Your task to perform on an android device: move an email to a new category in the gmail app Image 0: 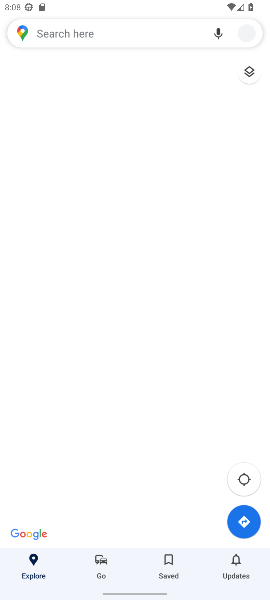
Step 0: drag from (144, 536) to (254, 271)
Your task to perform on an android device: move an email to a new category in the gmail app Image 1: 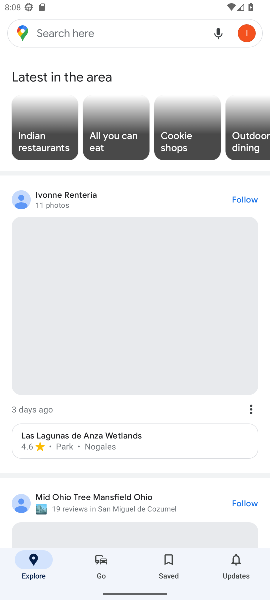
Step 1: press home button
Your task to perform on an android device: move an email to a new category in the gmail app Image 2: 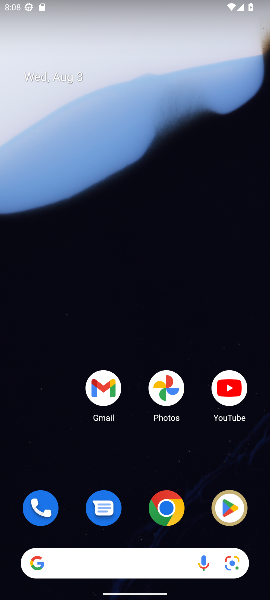
Step 2: drag from (132, 537) to (150, 0)
Your task to perform on an android device: move an email to a new category in the gmail app Image 3: 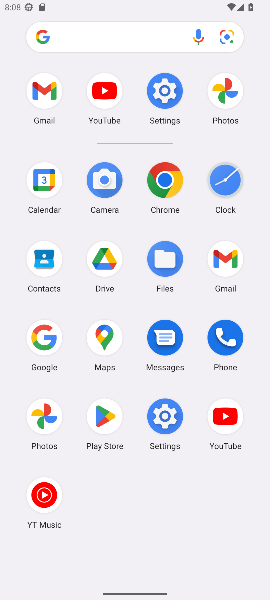
Step 3: click (225, 266)
Your task to perform on an android device: move an email to a new category in the gmail app Image 4: 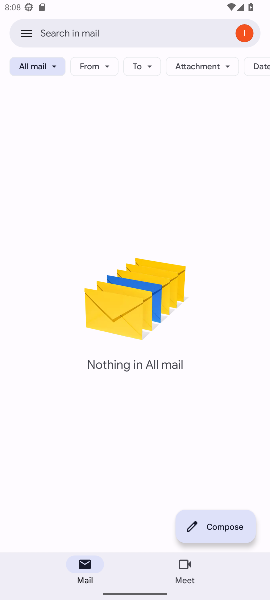
Step 4: click (24, 38)
Your task to perform on an android device: move an email to a new category in the gmail app Image 5: 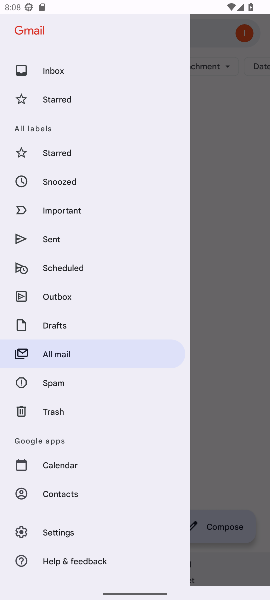
Step 5: click (48, 73)
Your task to perform on an android device: move an email to a new category in the gmail app Image 6: 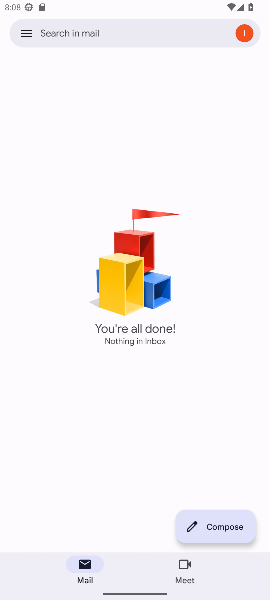
Step 6: task complete